Your task to perform on an android device: Open the phone app and click the voicemail tab. Image 0: 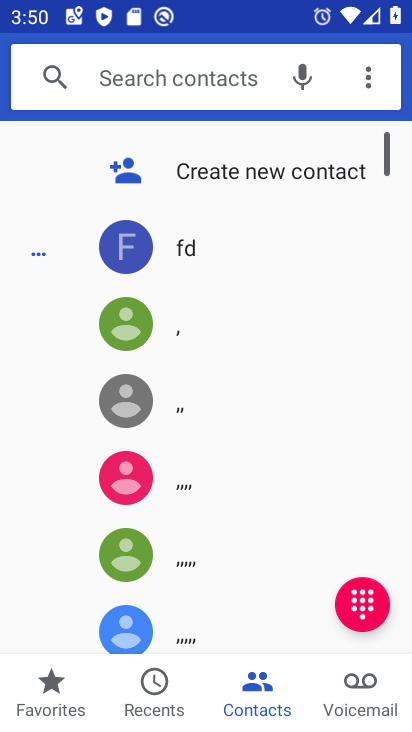
Step 0: press home button
Your task to perform on an android device: Open the phone app and click the voicemail tab. Image 1: 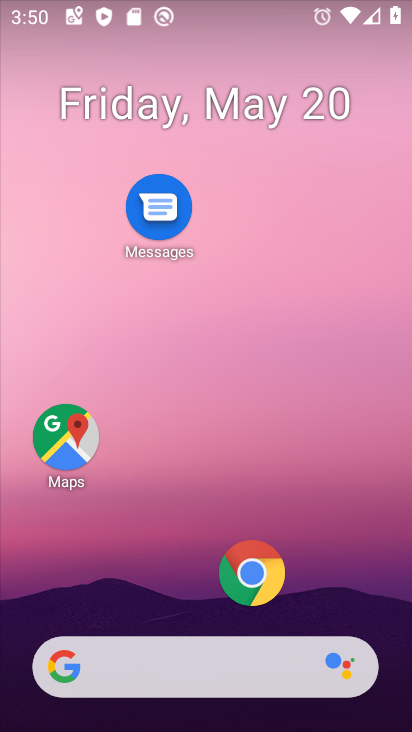
Step 1: drag from (219, 615) to (170, 42)
Your task to perform on an android device: Open the phone app and click the voicemail tab. Image 2: 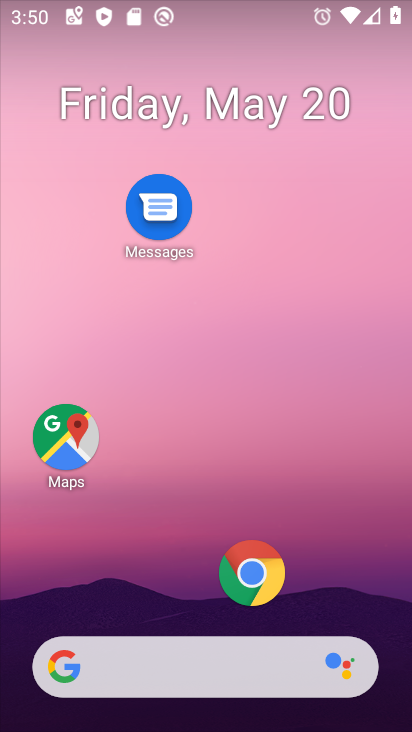
Step 2: drag from (201, 616) to (180, 70)
Your task to perform on an android device: Open the phone app and click the voicemail tab. Image 3: 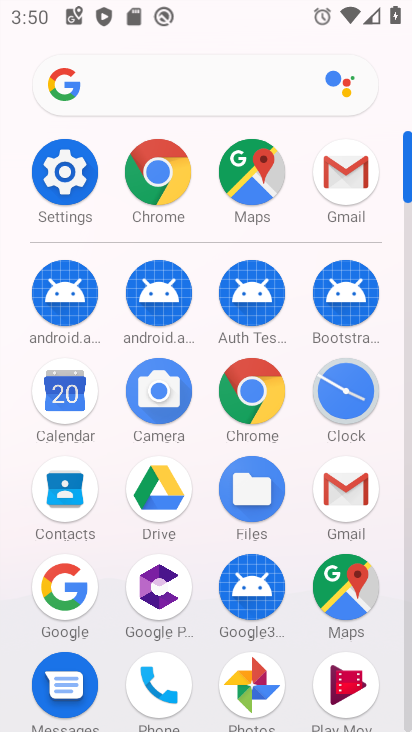
Step 3: click (148, 687)
Your task to perform on an android device: Open the phone app and click the voicemail tab. Image 4: 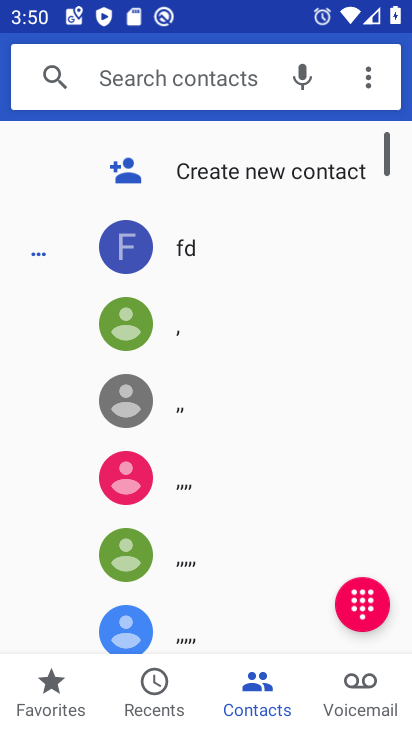
Step 4: click (348, 695)
Your task to perform on an android device: Open the phone app and click the voicemail tab. Image 5: 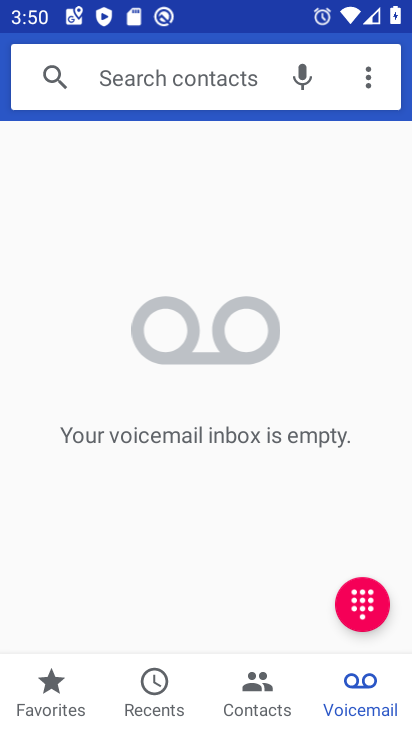
Step 5: task complete